Your task to perform on an android device: Open Youtube and go to the subscriptions tab Image 0: 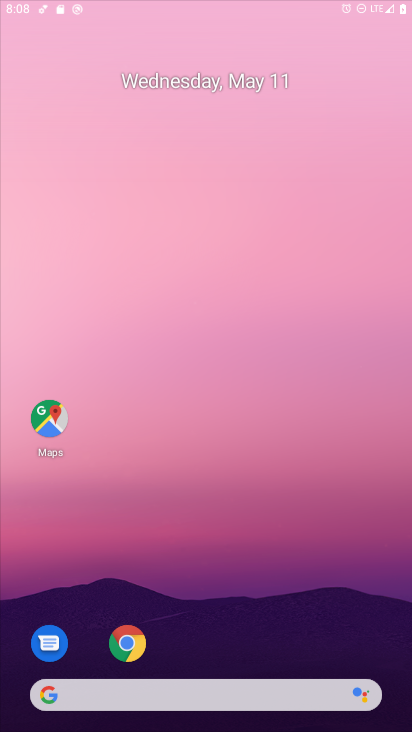
Step 0: drag from (224, 597) to (255, 4)
Your task to perform on an android device: Open Youtube and go to the subscriptions tab Image 1: 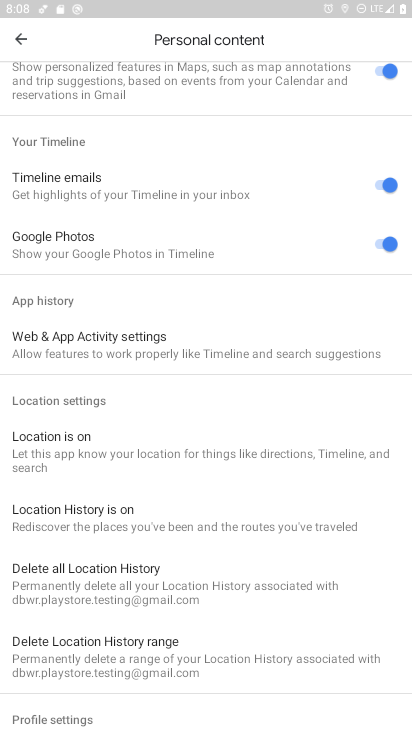
Step 1: press home button
Your task to perform on an android device: Open Youtube and go to the subscriptions tab Image 2: 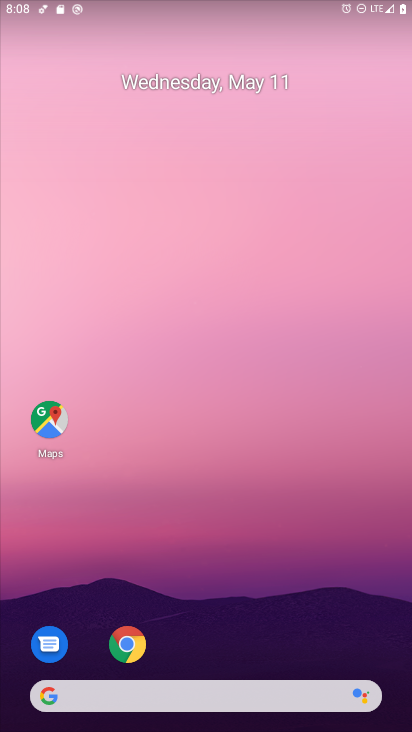
Step 2: drag from (221, 591) to (176, 155)
Your task to perform on an android device: Open Youtube and go to the subscriptions tab Image 3: 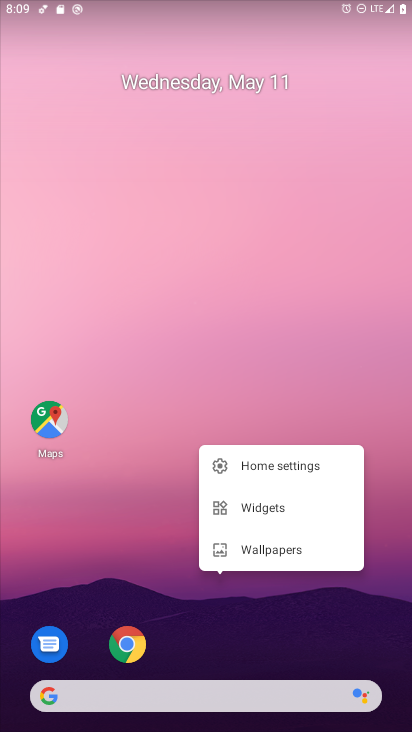
Step 3: click (245, 625)
Your task to perform on an android device: Open Youtube and go to the subscriptions tab Image 4: 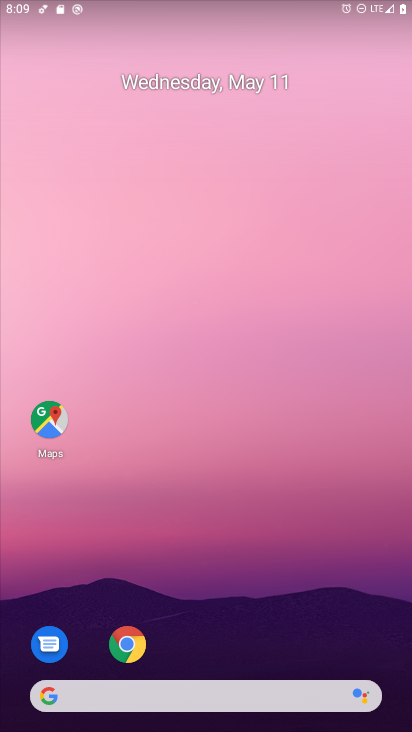
Step 4: drag from (256, 658) to (208, 92)
Your task to perform on an android device: Open Youtube and go to the subscriptions tab Image 5: 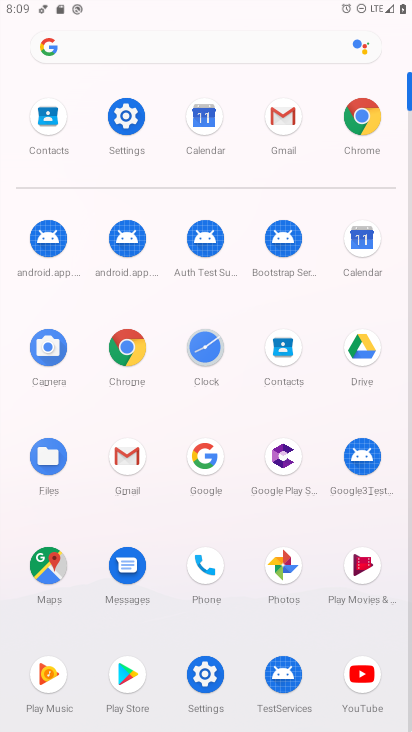
Step 5: click (363, 676)
Your task to perform on an android device: Open Youtube and go to the subscriptions tab Image 6: 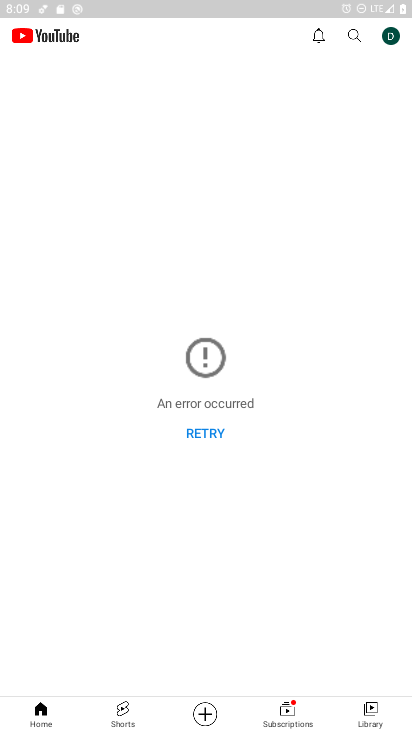
Step 6: click (285, 710)
Your task to perform on an android device: Open Youtube and go to the subscriptions tab Image 7: 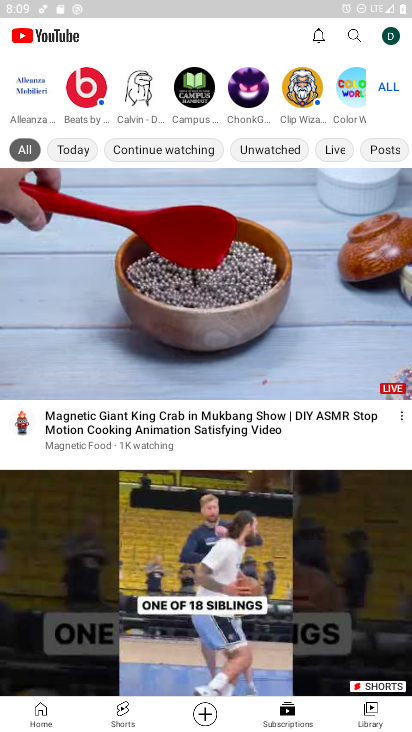
Step 7: task complete